Your task to perform on an android device: open chrome privacy settings Image 0: 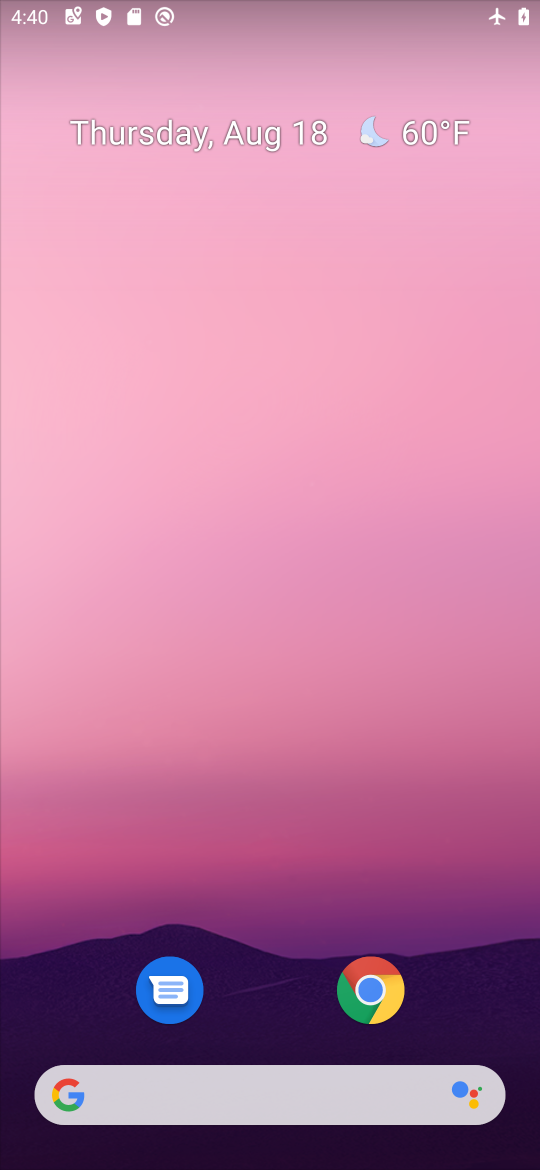
Step 0: drag from (279, 939) to (386, 163)
Your task to perform on an android device: open chrome privacy settings Image 1: 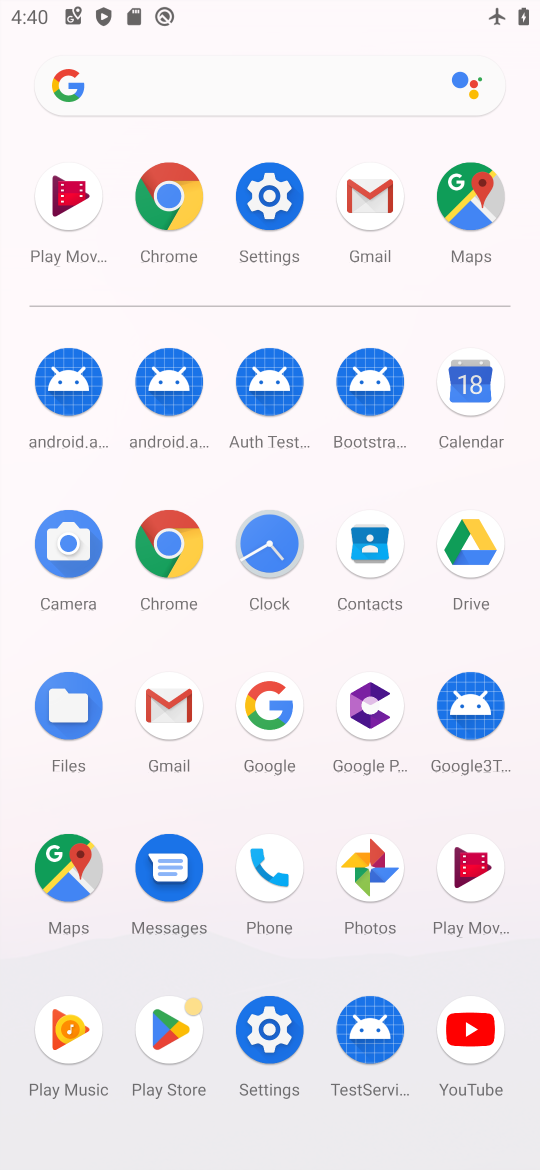
Step 1: click (167, 540)
Your task to perform on an android device: open chrome privacy settings Image 2: 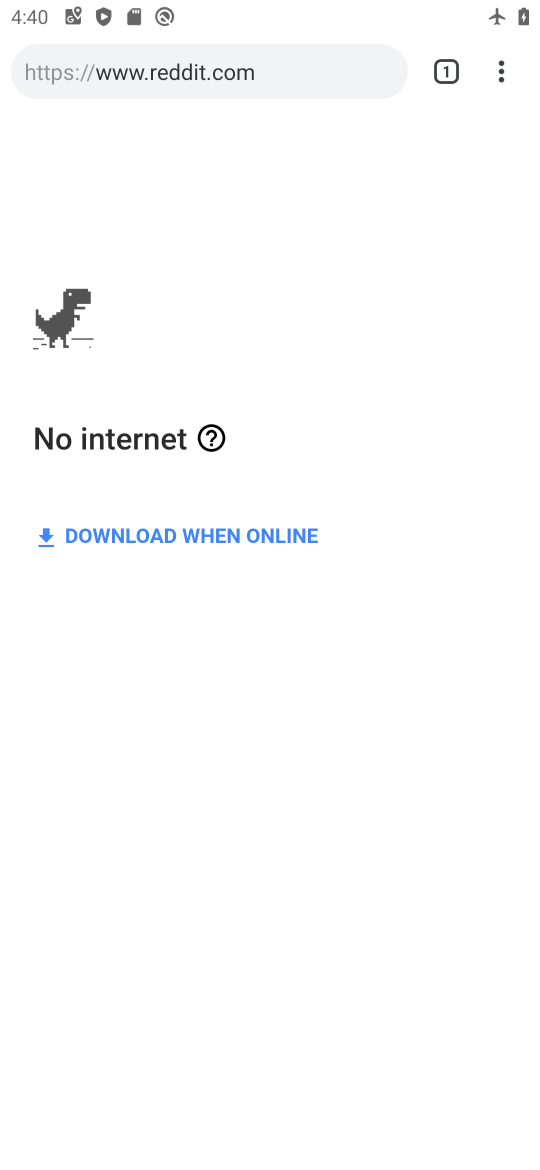
Step 2: drag from (497, 57) to (245, 804)
Your task to perform on an android device: open chrome privacy settings Image 3: 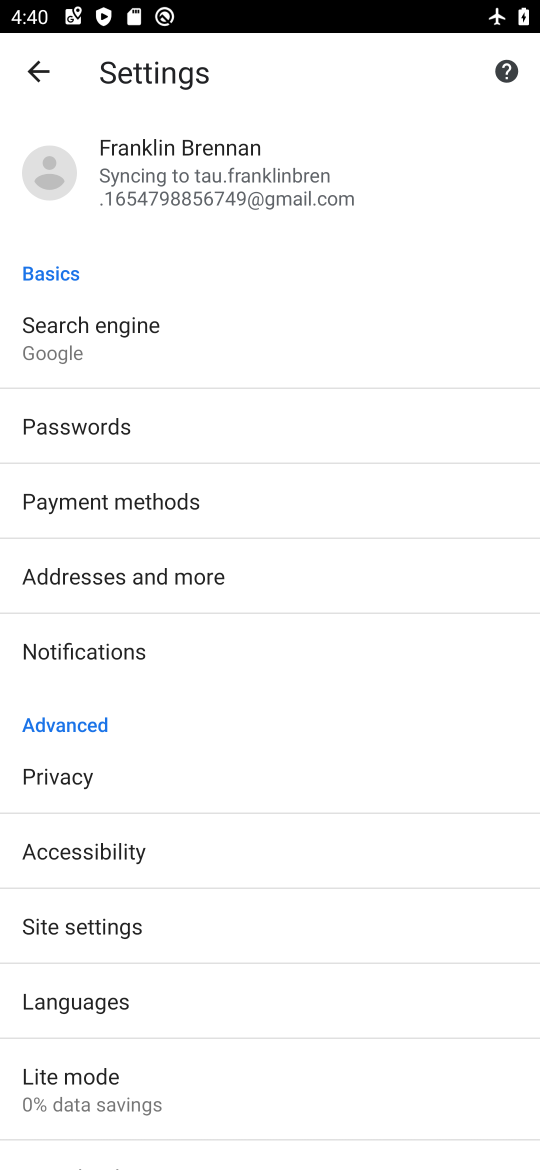
Step 3: drag from (230, 819) to (299, 346)
Your task to perform on an android device: open chrome privacy settings Image 4: 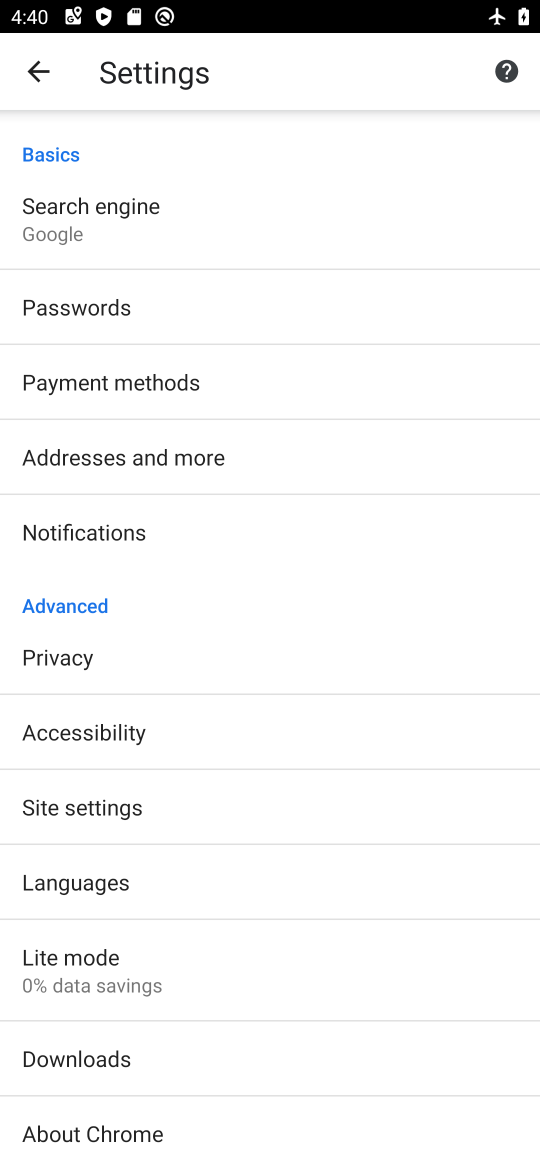
Step 4: click (69, 650)
Your task to perform on an android device: open chrome privacy settings Image 5: 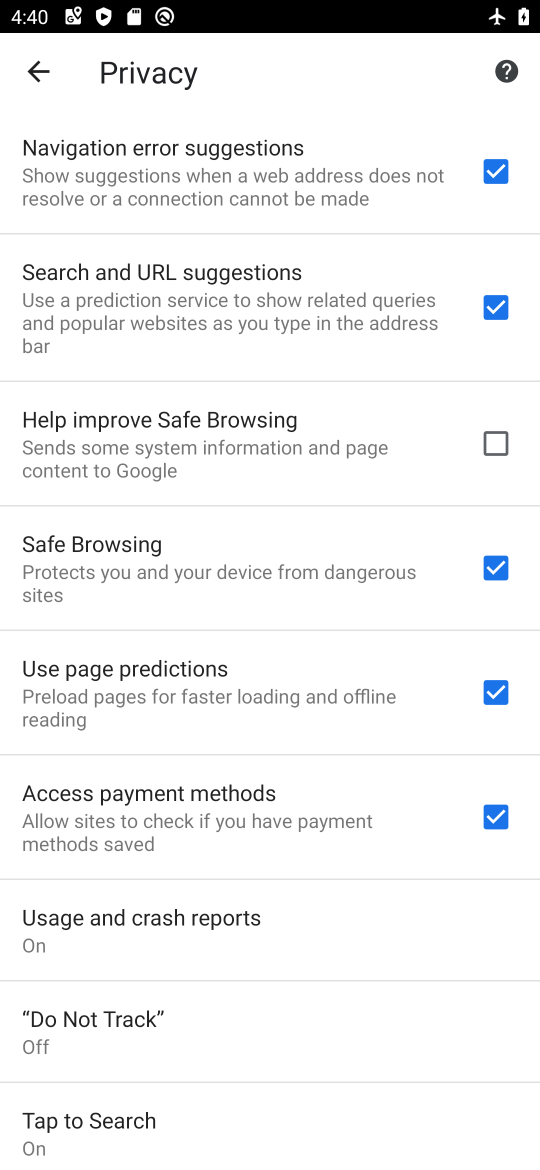
Step 5: task complete